Your task to perform on an android device: add a contact Image 0: 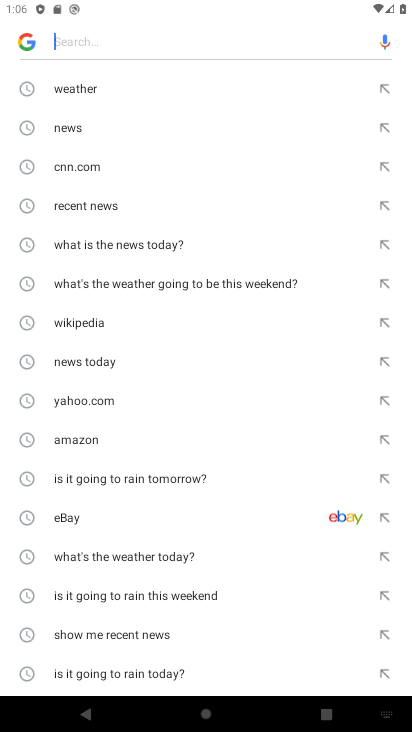
Step 0: press home button
Your task to perform on an android device: add a contact Image 1: 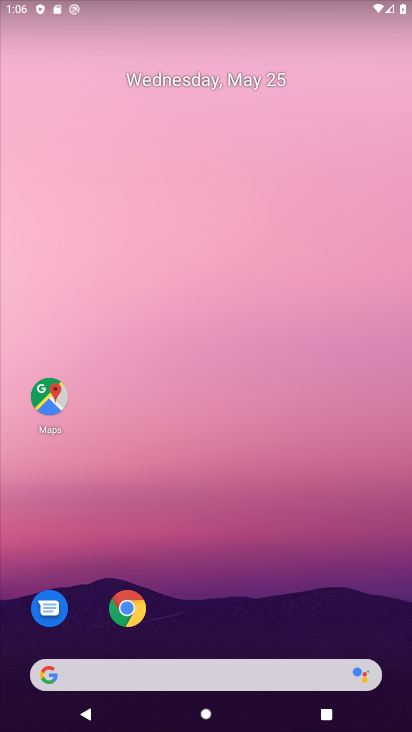
Step 1: drag from (265, 702) to (244, 1)
Your task to perform on an android device: add a contact Image 2: 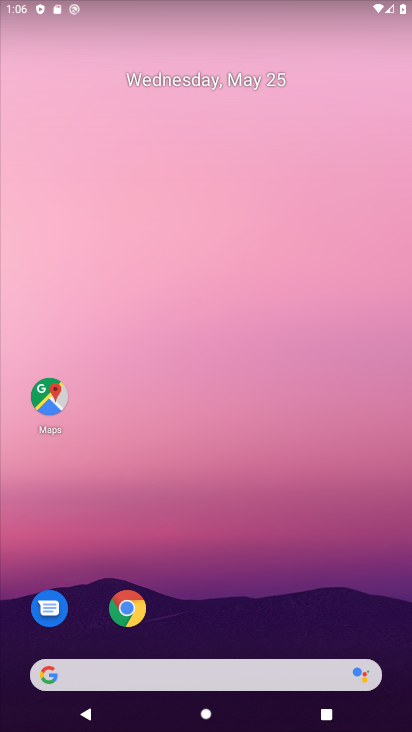
Step 2: drag from (303, 482) to (277, 9)
Your task to perform on an android device: add a contact Image 3: 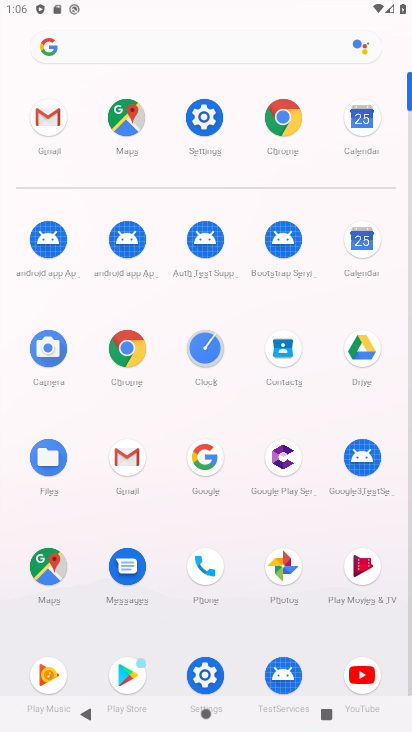
Step 3: click (289, 345)
Your task to perform on an android device: add a contact Image 4: 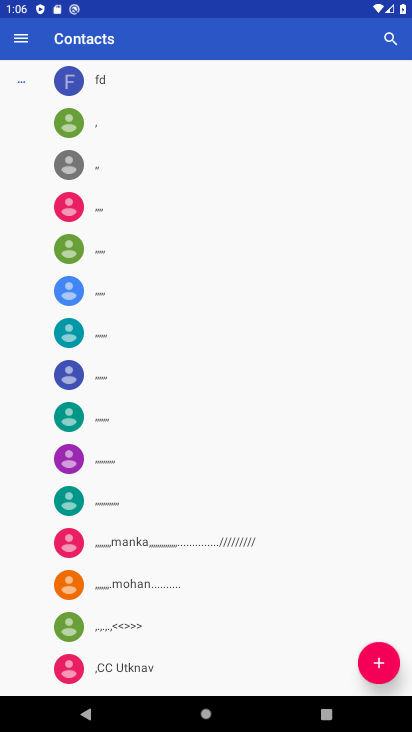
Step 4: click (382, 669)
Your task to perform on an android device: add a contact Image 5: 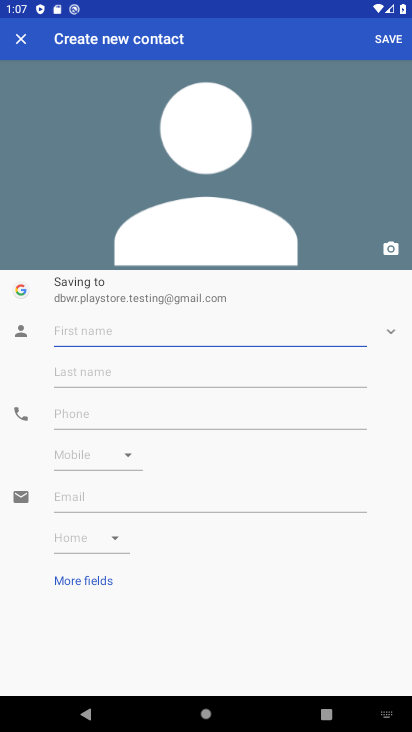
Step 5: type "hy"
Your task to perform on an android device: add a contact Image 6: 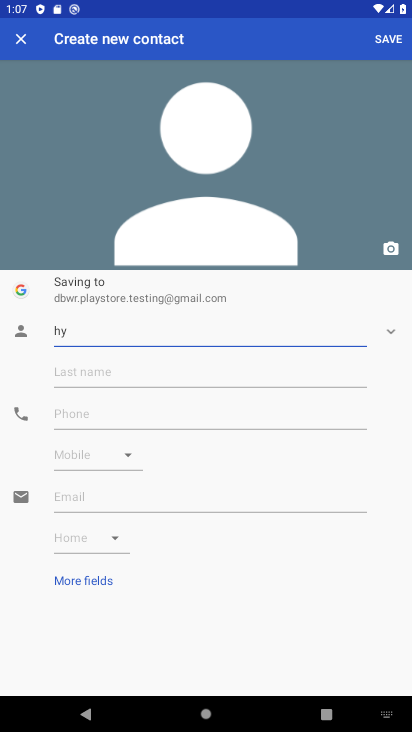
Step 6: click (196, 415)
Your task to perform on an android device: add a contact Image 7: 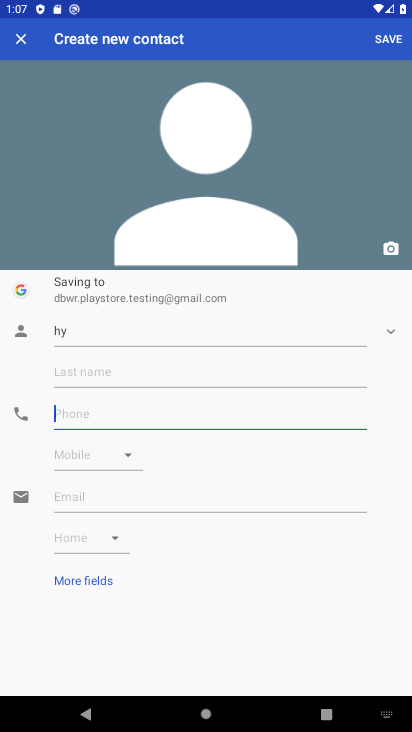
Step 7: type "88"
Your task to perform on an android device: add a contact Image 8: 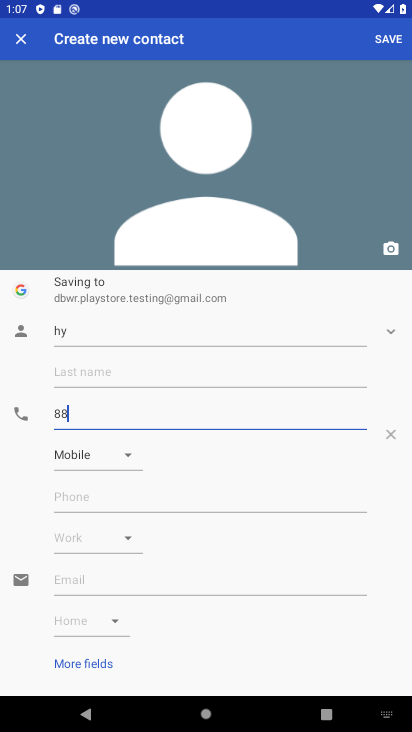
Step 8: click (377, 38)
Your task to perform on an android device: add a contact Image 9: 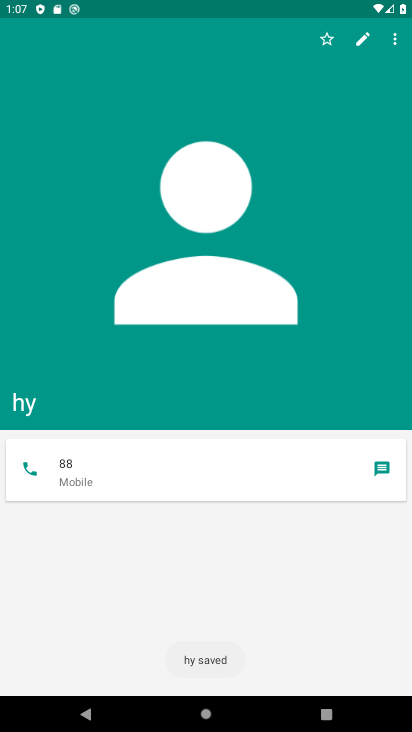
Step 9: task complete